Your task to perform on an android device: Go to battery settings Image 0: 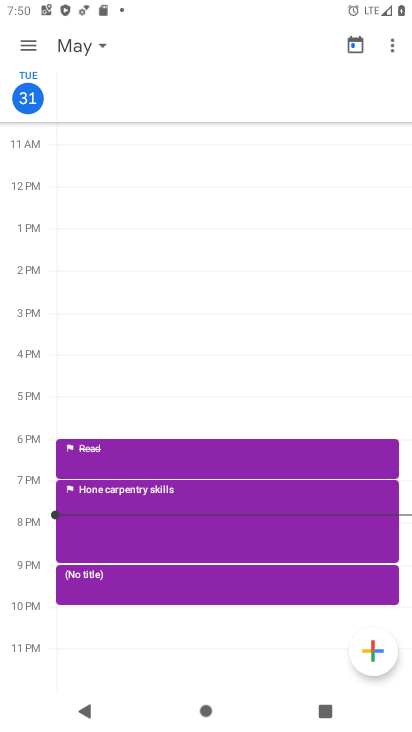
Step 0: press home button
Your task to perform on an android device: Go to battery settings Image 1: 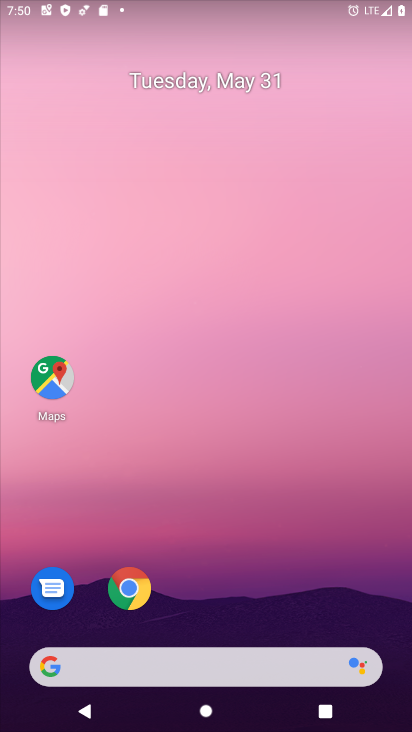
Step 1: drag from (225, 600) to (295, 131)
Your task to perform on an android device: Go to battery settings Image 2: 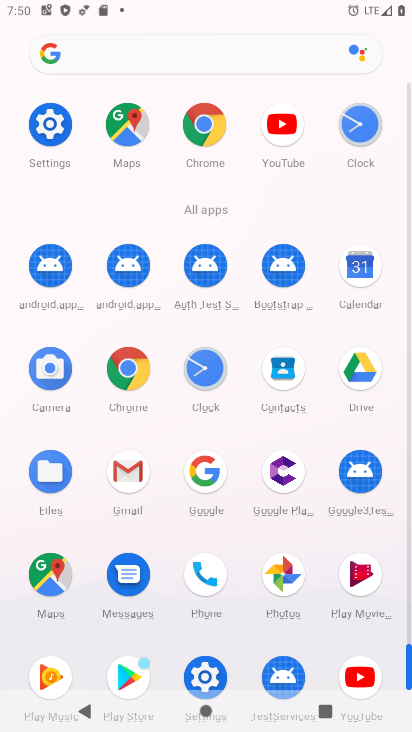
Step 2: click (54, 138)
Your task to perform on an android device: Go to battery settings Image 3: 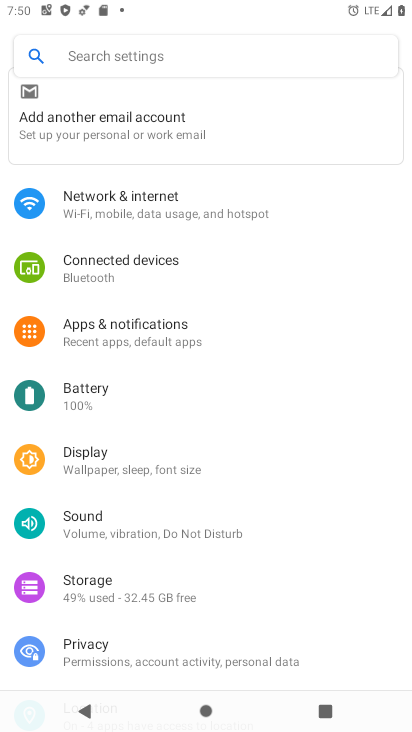
Step 3: click (135, 402)
Your task to perform on an android device: Go to battery settings Image 4: 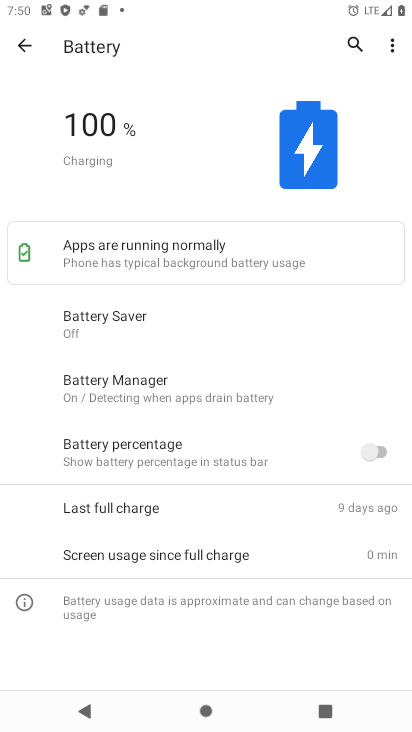
Step 4: task complete